Your task to perform on an android device: Clear the cart on target.com. Add jbl flip 4 to the cart on target.com Image 0: 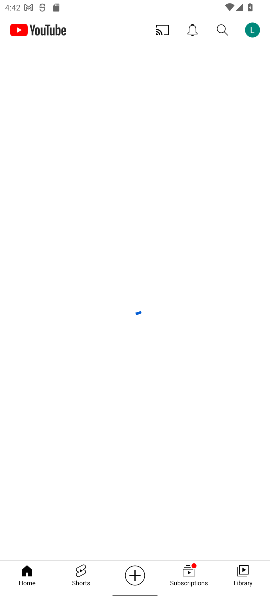
Step 0: press home button
Your task to perform on an android device: Clear the cart on target.com. Add jbl flip 4 to the cart on target.com Image 1: 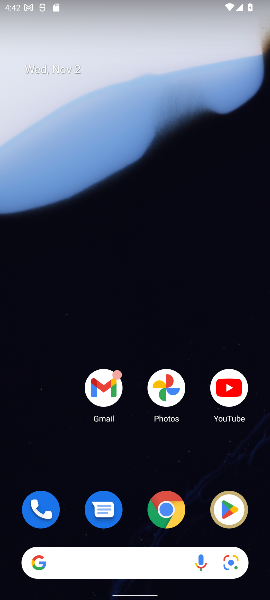
Step 1: click (122, 556)
Your task to perform on an android device: Clear the cart on target.com. Add jbl flip 4 to the cart on target.com Image 2: 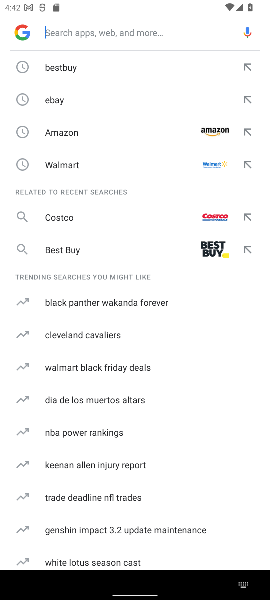
Step 2: type "target"
Your task to perform on an android device: Clear the cart on target.com. Add jbl flip 4 to the cart on target.com Image 3: 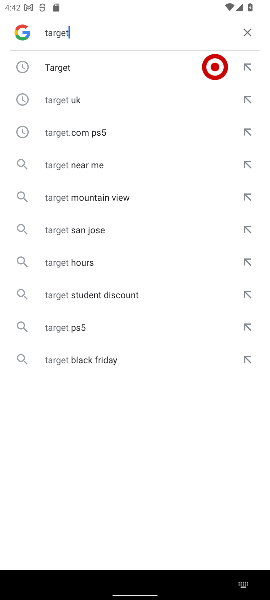
Step 3: click (47, 68)
Your task to perform on an android device: Clear the cart on target.com. Add jbl flip 4 to the cart on target.com Image 4: 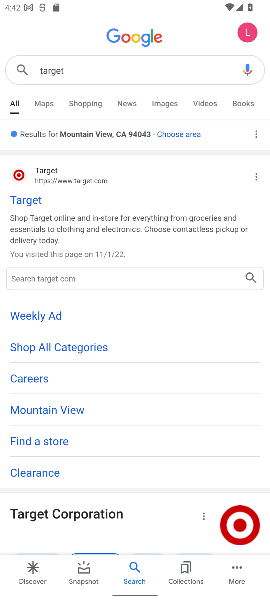
Step 4: click (28, 194)
Your task to perform on an android device: Clear the cart on target.com. Add jbl flip 4 to the cart on target.com Image 5: 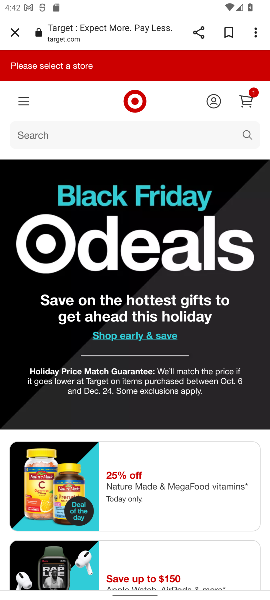
Step 5: click (253, 97)
Your task to perform on an android device: Clear the cart on target.com. Add jbl flip 4 to the cart on target.com Image 6: 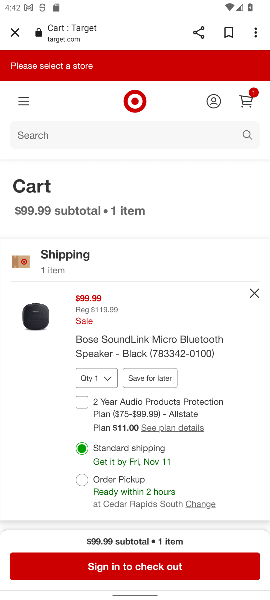
Step 6: click (256, 294)
Your task to perform on an android device: Clear the cart on target.com. Add jbl flip 4 to the cart on target.com Image 7: 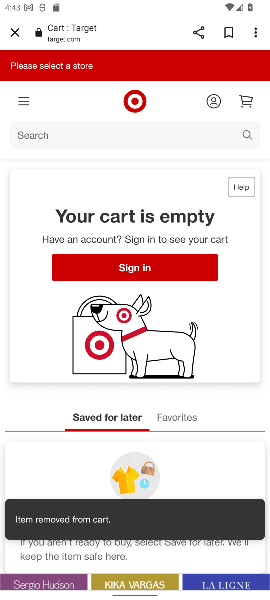
Step 7: click (80, 132)
Your task to perform on an android device: Clear the cart on target.com. Add jbl flip 4 to the cart on target.com Image 8: 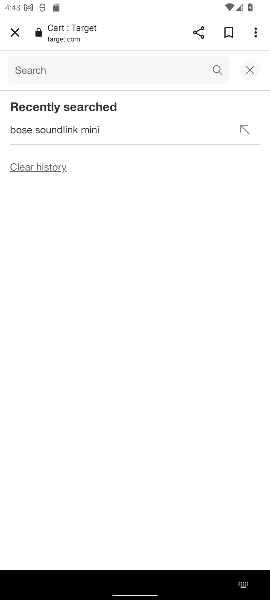
Step 8: type "jbl flip 4"
Your task to perform on an android device: Clear the cart on target.com. Add jbl flip 4 to the cart on target.com Image 9: 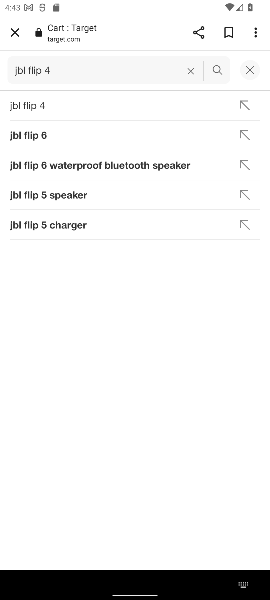
Step 9: click (55, 101)
Your task to perform on an android device: Clear the cart on target.com. Add jbl flip 4 to the cart on target.com Image 10: 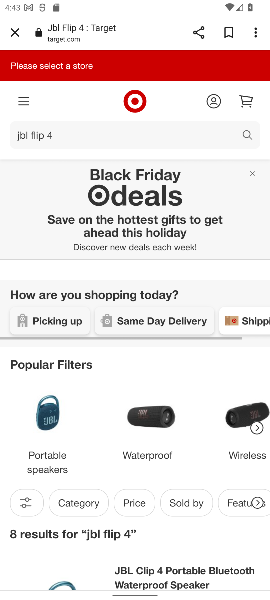
Step 10: drag from (116, 371) to (107, 214)
Your task to perform on an android device: Clear the cart on target.com. Add jbl flip 4 to the cart on target.com Image 11: 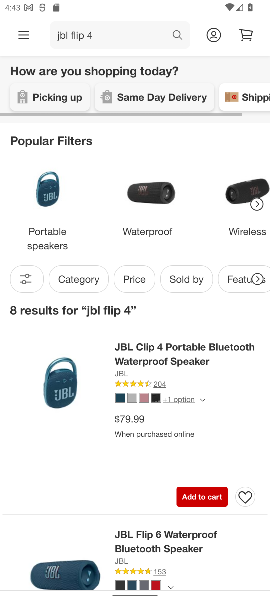
Step 11: click (202, 502)
Your task to perform on an android device: Clear the cart on target.com. Add jbl flip 4 to the cart on target.com Image 12: 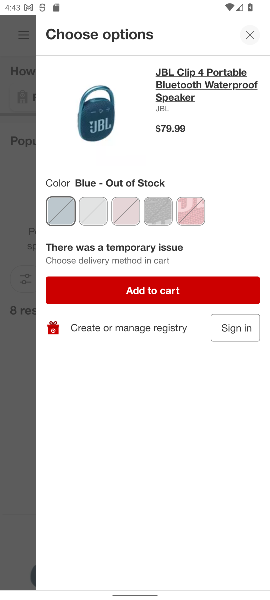
Step 12: click (141, 291)
Your task to perform on an android device: Clear the cart on target.com. Add jbl flip 4 to the cart on target.com Image 13: 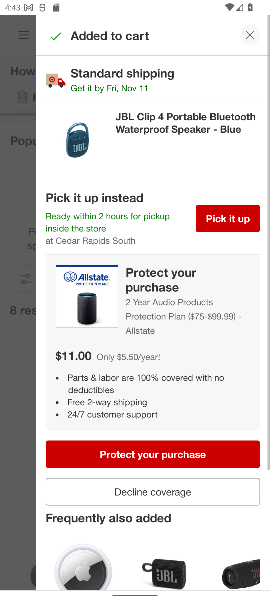
Step 13: task complete